Your task to perform on an android device: turn off notifications in google photos Image 0: 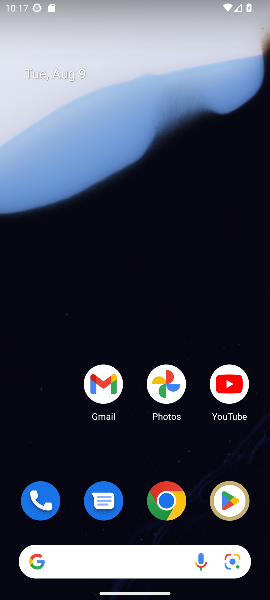
Step 0: drag from (142, 497) to (155, 82)
Your task to perform on an android device: turn off notifications in google photos Image 1: 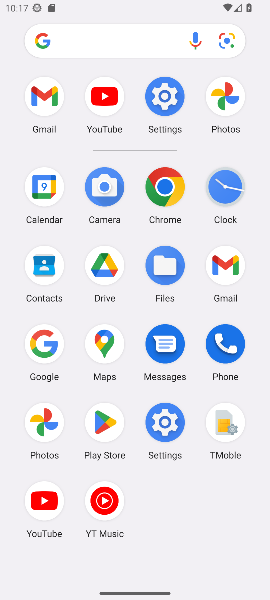
Step 1: click (43, 430)
Your task to perform on an android device: turn off notifications in google photos Image 2: 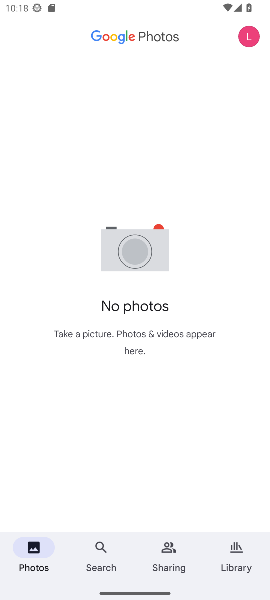
Step 2: click (249, 38)
Your task to perform on an android device: turn off notifications in google photos Image 3: 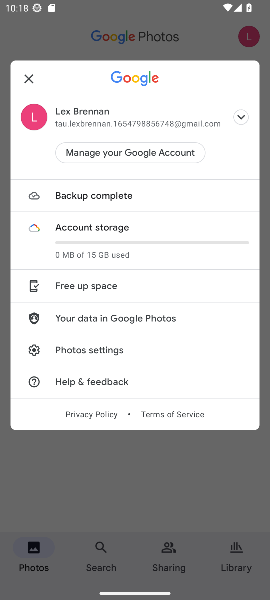
Step 3: click (67, 348)
Your task to perform on an android device: turn off notifications in google photos Image 4: 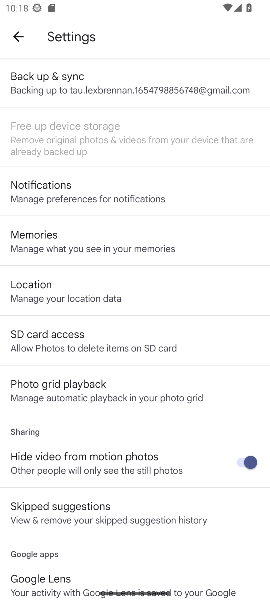
Step 4: click (57, 194)
Your task to perform on an android device: turn off notifications in google photos Image 5: 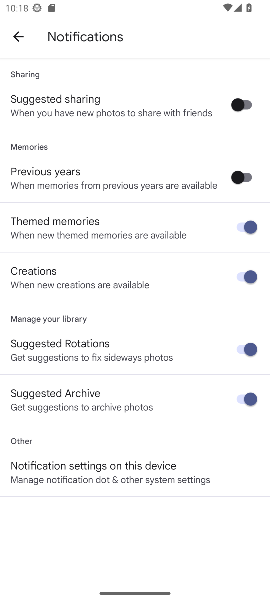
Step 5: click (93, 468)
Your task to perform on an android device: turn off notifications in google photos Image 6: 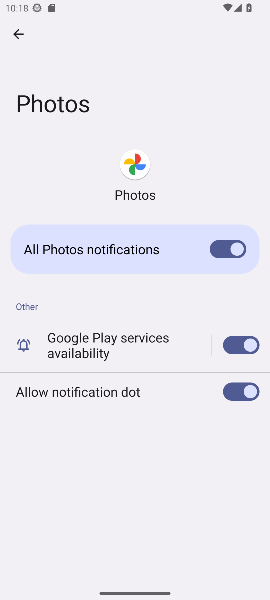
Step 6: click (207, 249)
Your task to perform on an android device: turn off notifications in google photos Image 7: 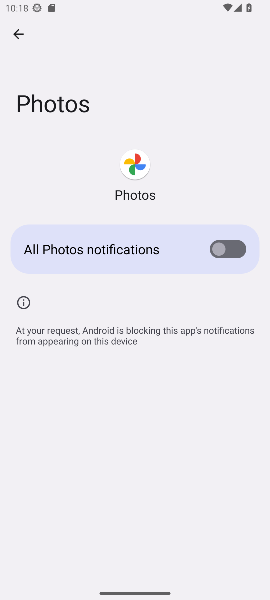
Step 7: task complete